Your task to perform on an android device: add a contact in the contacts app Image 0: 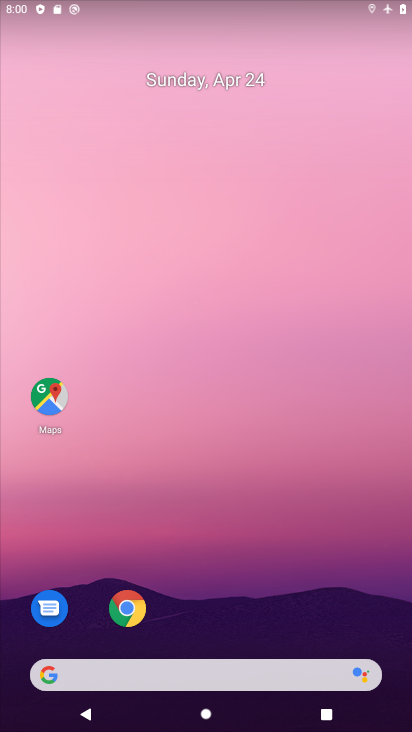
Step 0: drag from (160, 656) to (283, 77)
Your task to perform on an android device: add a contact in the contacts app Image 1: 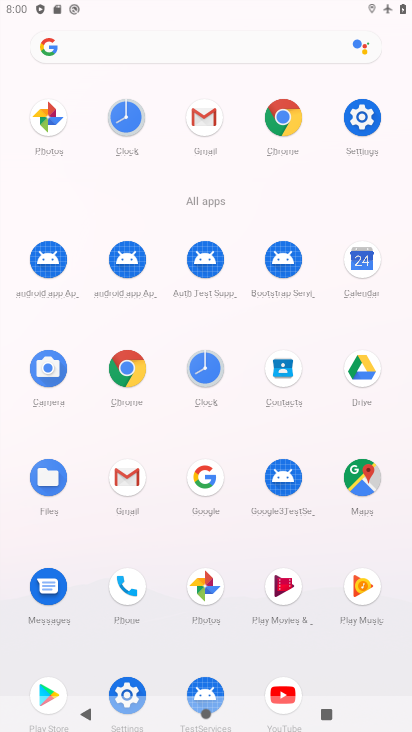
Step 1: click (281, 367)
Your task to perform on an android device: add a contact in the contacts app Image 2: 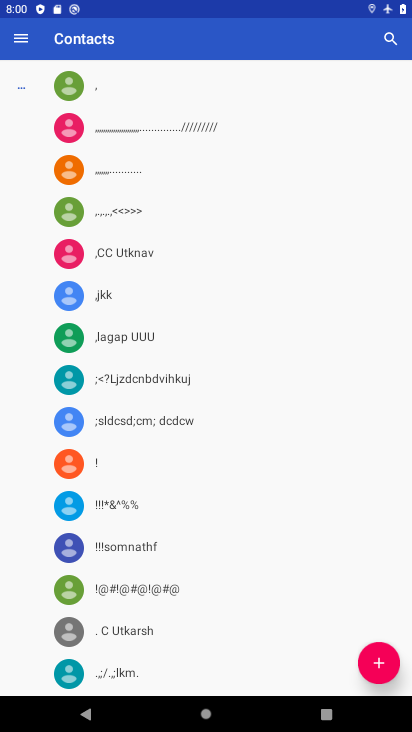
Step 2: click (381, 665)
Your task to perform on an android device: add a contact in the contacts app Image 3: 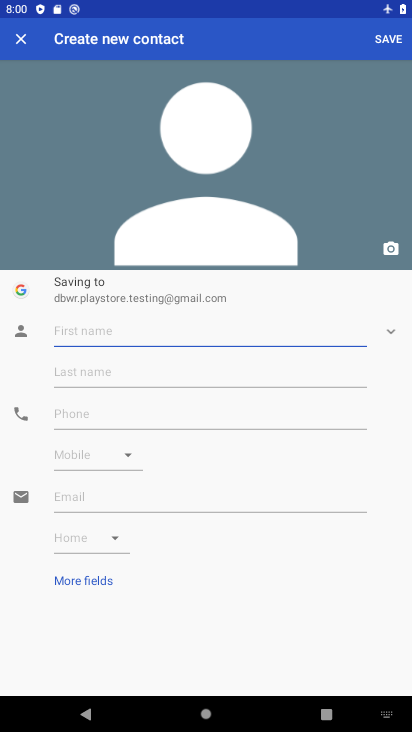
Step 3: type "Henery "
Your task to perform on an android device: add a contact in the contacts app Image 4: 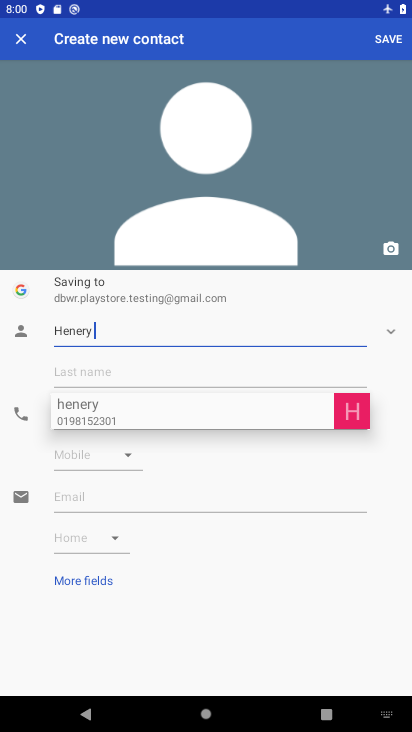
Step 4: type "will"
Your task to perform on an android device: add a contact in the contacts app Image 5: 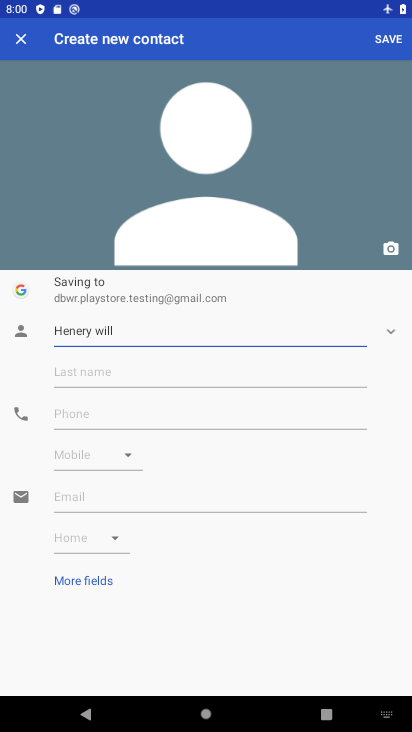
Step 5: click (92, 414)
Your task to perform on an android device: add a contact in the contacts app Image 6: 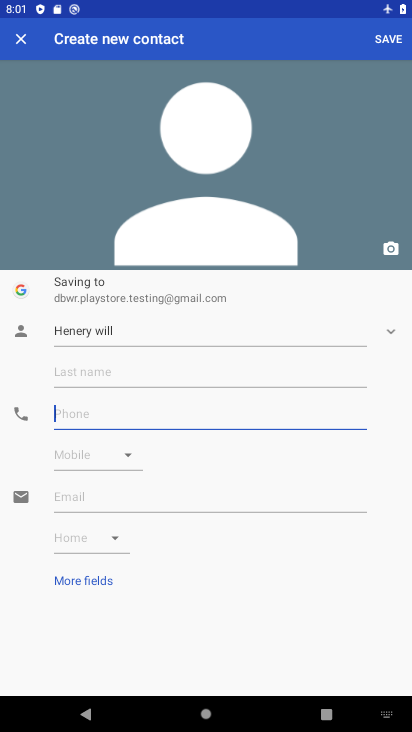
Step 6: type "28282222"
Your task to perform on an android device: add a contact in the contacts app Image 7: 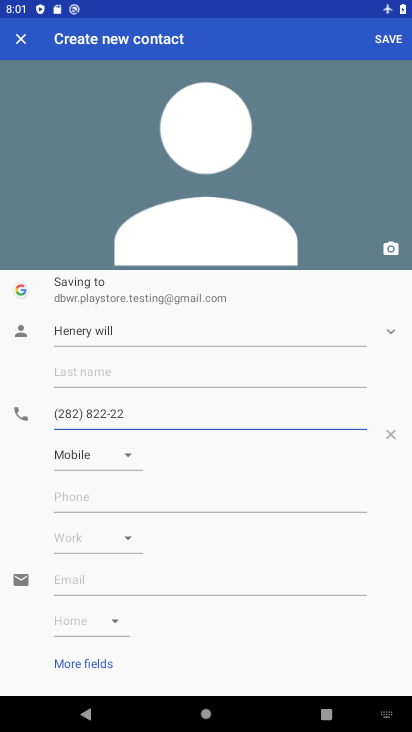
Step 7: type "1"
Your task to perform on an android device: add a contact in the contacts app Image 8: 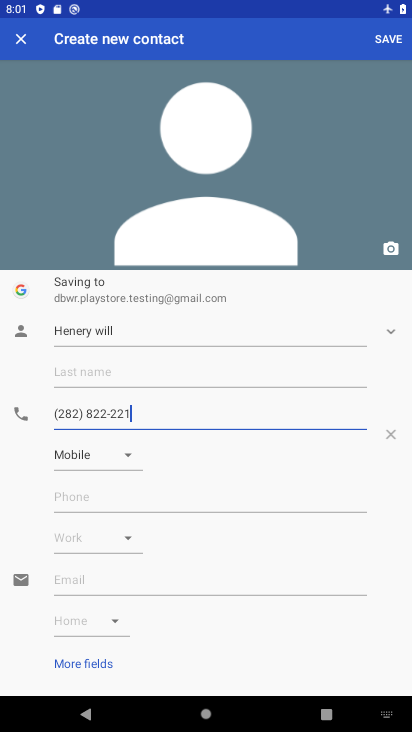
Step 8: click (390, 41)
Your task to perform on an android device: add a contact in the contacts app Image 9: 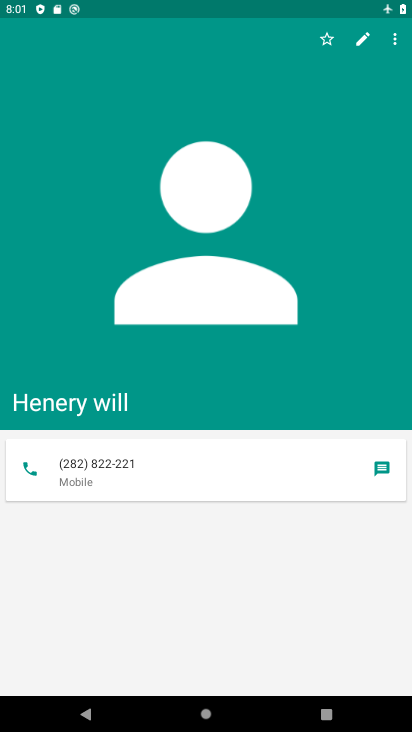
Step 9: task complete